Your task to perform on an android device: install app "VLC for Android" Image 0: 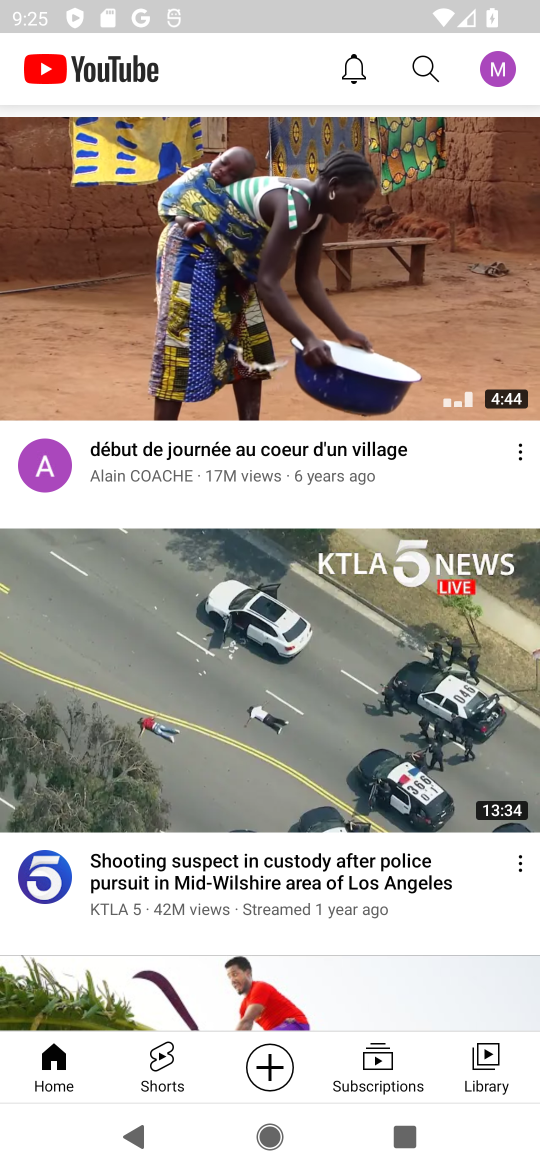
Step 0: press home button
Your task to perform on an android device: install app "VLC for Android" Image 1: 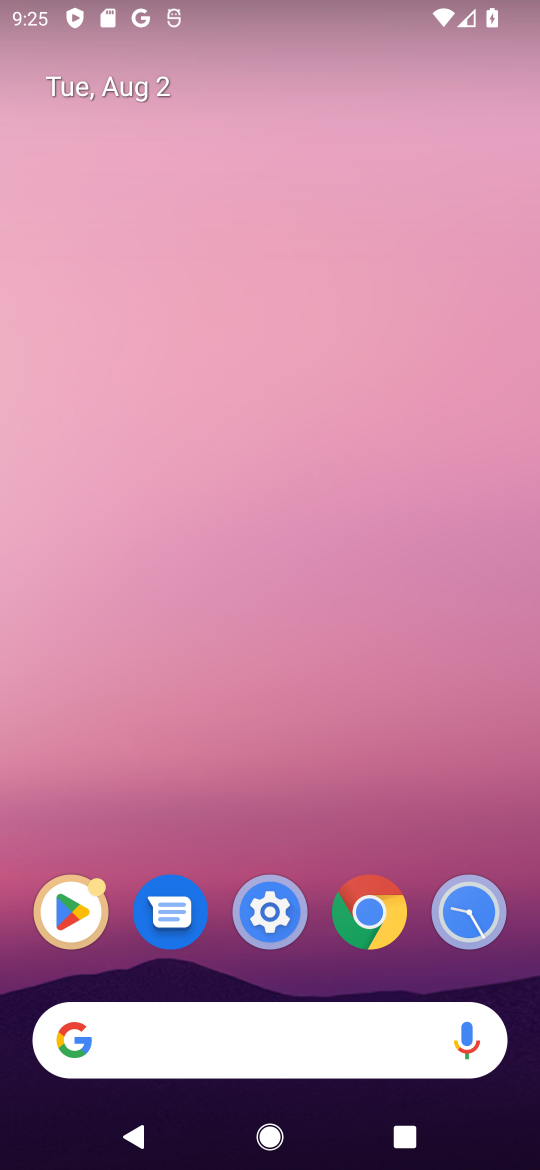
Step 1: click (65, 897)
Your task to perform on an android device: install app "VLC for Android" Image 2: 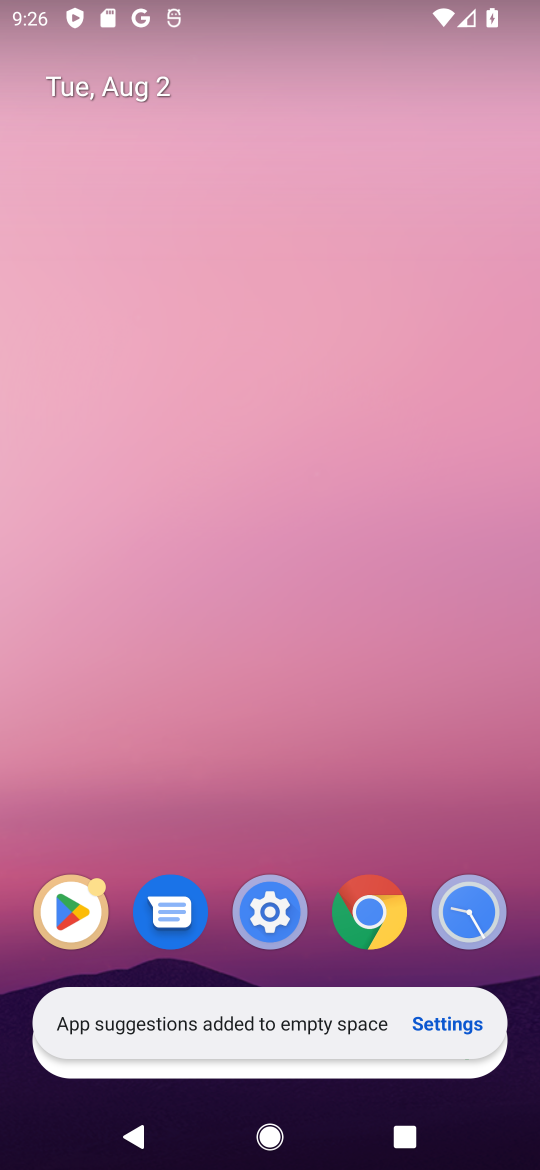
Step 2: click (65, 901)
Your task to perform on an android device: install app "VLC for Android" Image 3: 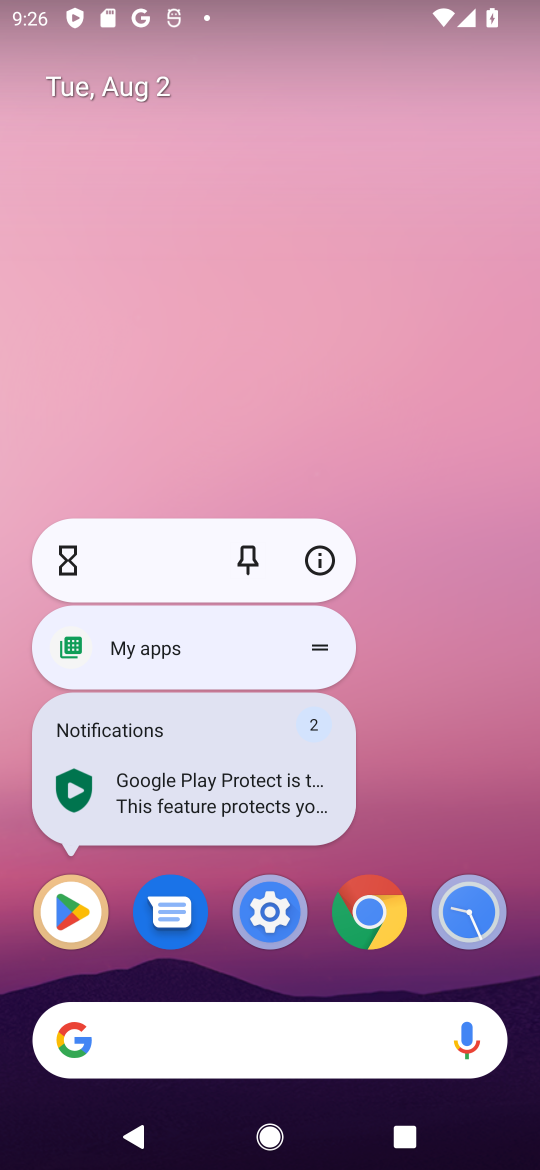
Step 3: click (57, 910)
Your task to perform on an android device: install app "VLC for Android" Image 4: 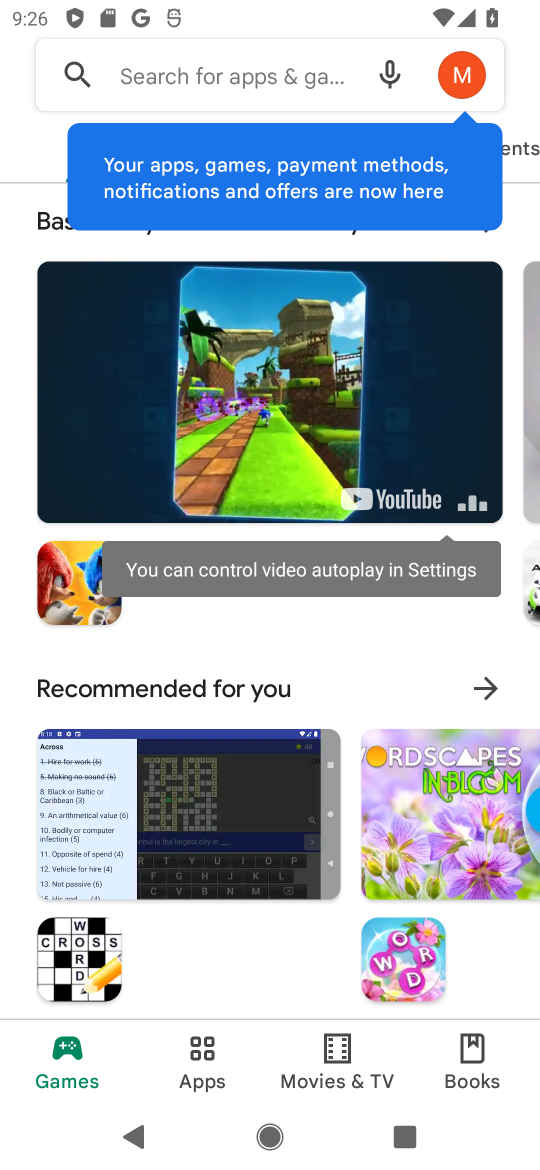
Step 4: click (140, 71)
Your task to perform on an android device: install app "VLC for Android" Image 5: 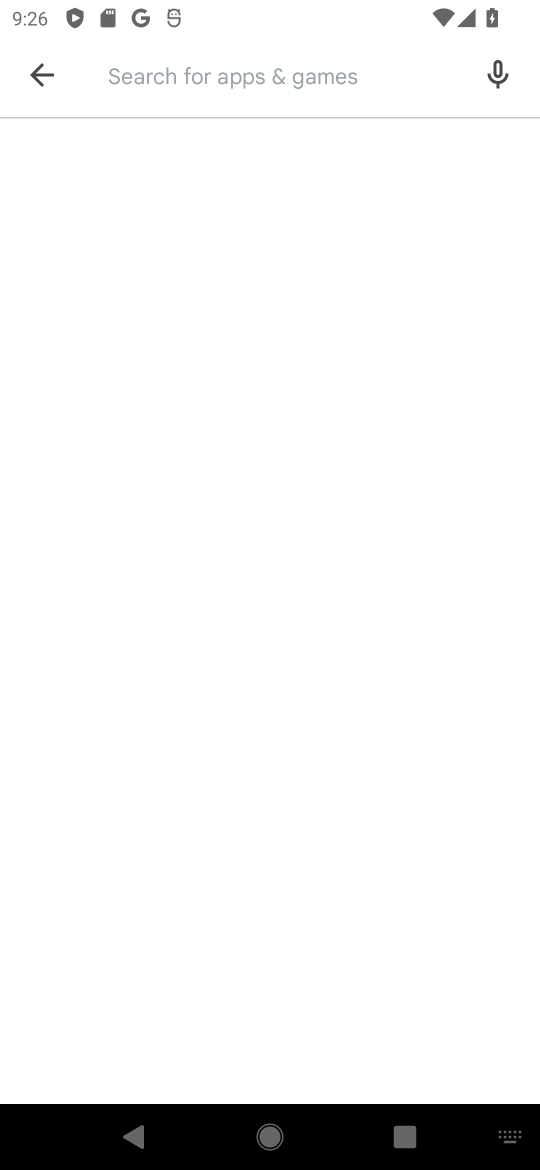
Step 5: type "VLC for Android"
Your task to perform on an android device: install app "VLC for Android" Image 6: 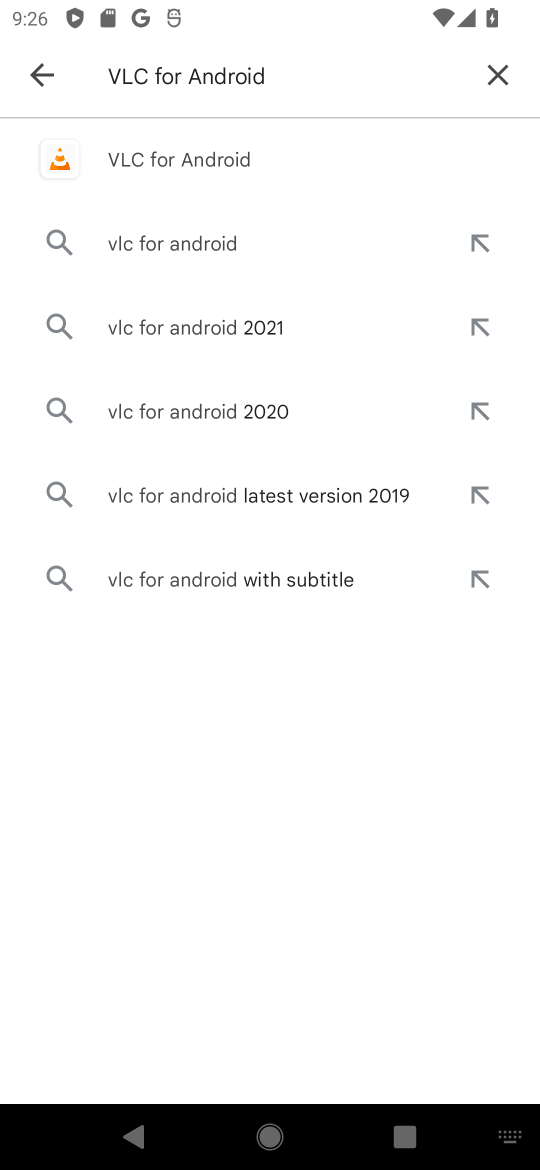
Step 6: click (330, 166)
Your task to perform on an android device: install app "VLC for Android" Image 7: 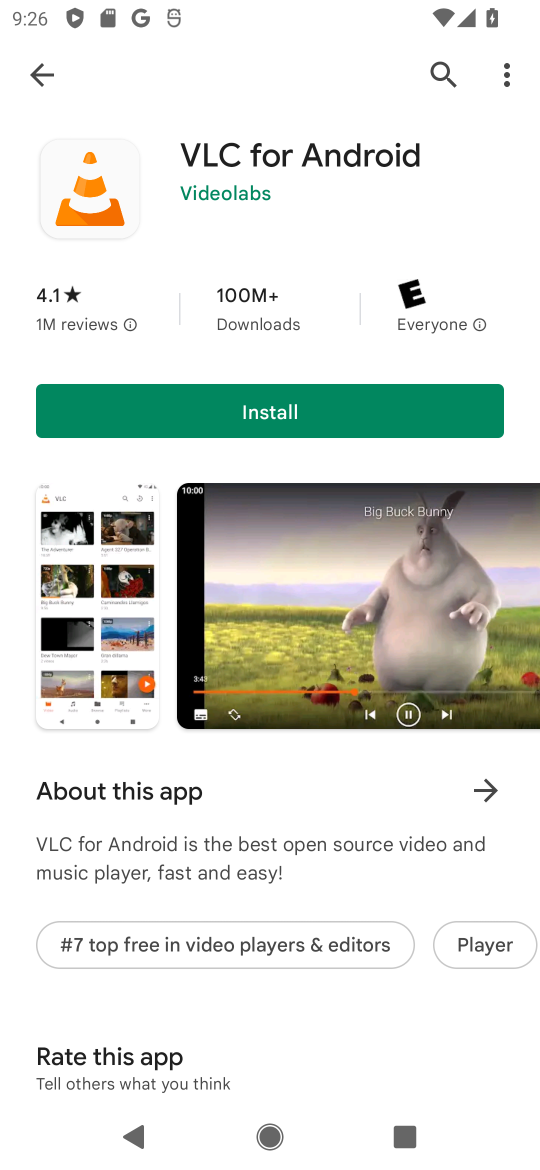
Step 7: click (281, 409)
Your task to perform on an android device: install app "VLC for Android" Image 8: 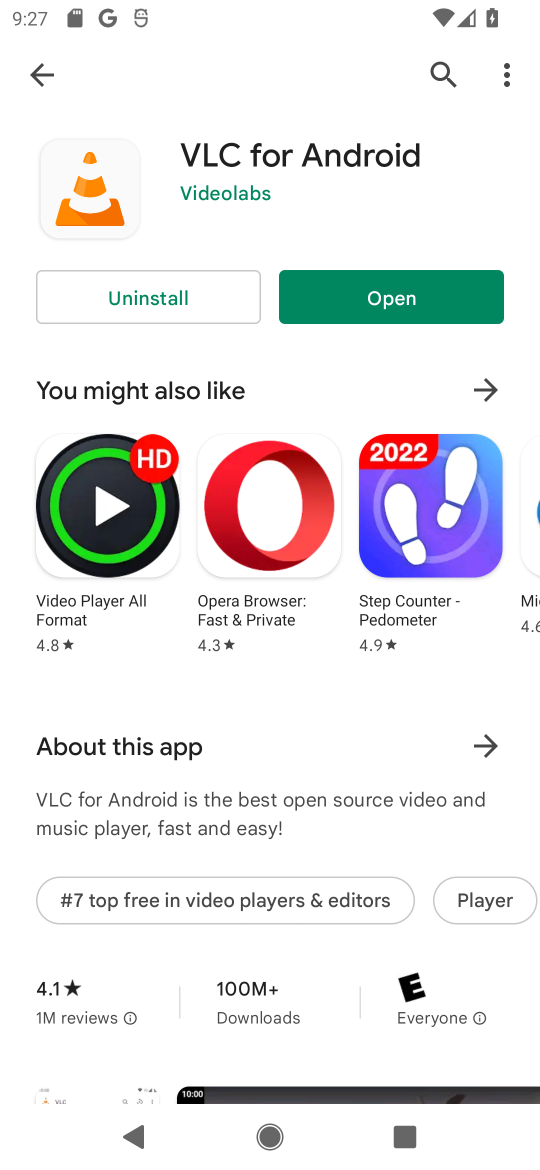
Step 8: click (383, 304)
Your task to perform on an android device: install app "VLC for Android" Image 9: 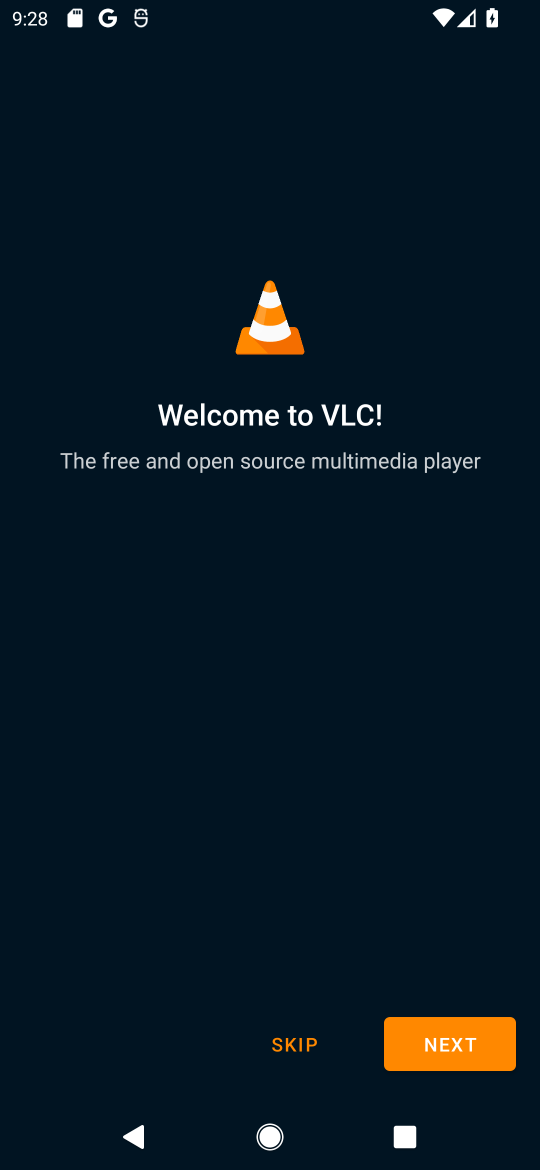
Step 9: click (310, 1041)
Your task to perform on an android device: install app "VLC for Android" Image 10: 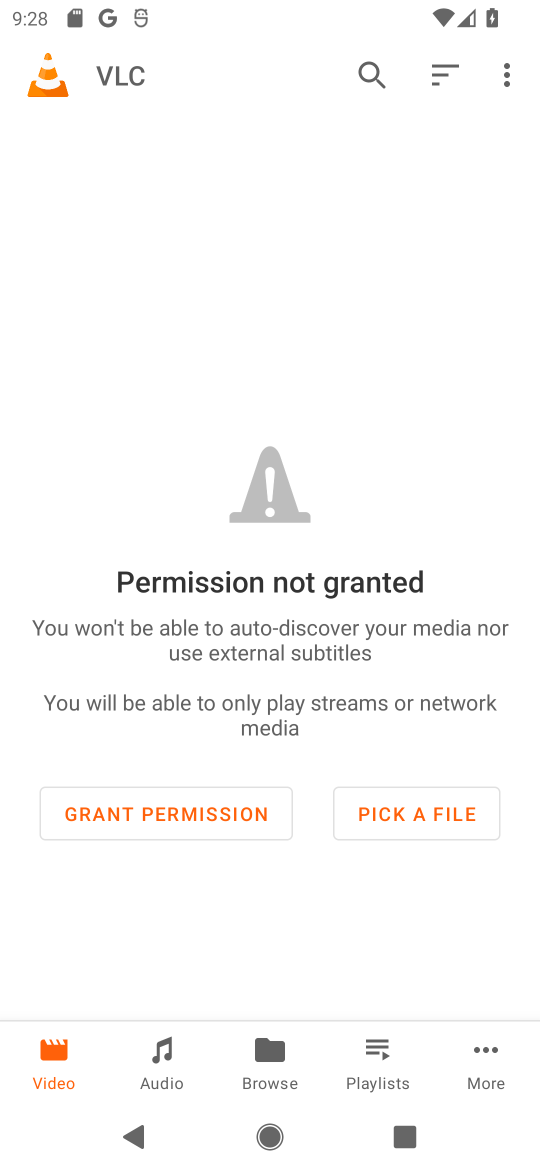
Step 10: task complete